Your task to perform on an android device: toggle show notifications on the lock screen Image 0: 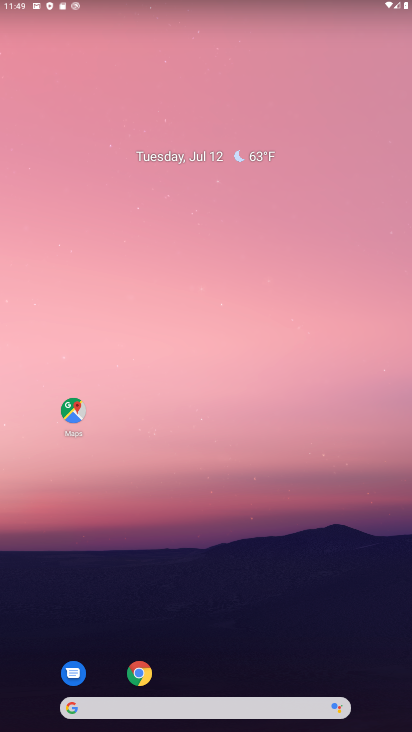
Step 0: press home button
Your task to perform on an android device: toggle show notifications on the lock screen Image 1: 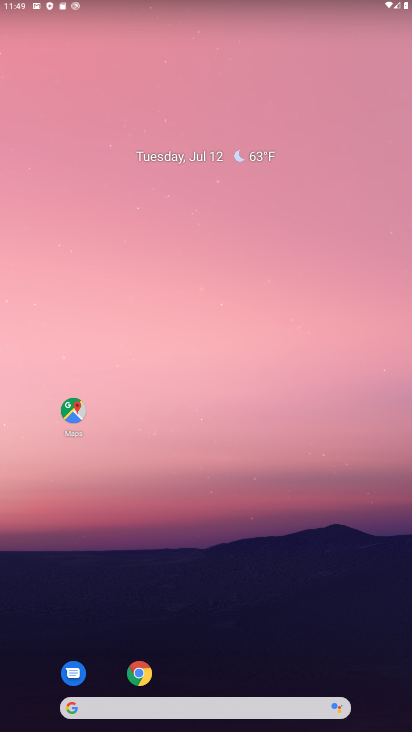
Step 1: drag from (232, 599) to (80, 9)
Your task to perform on an android device: toggle show notifications on the lock screen Image 2: 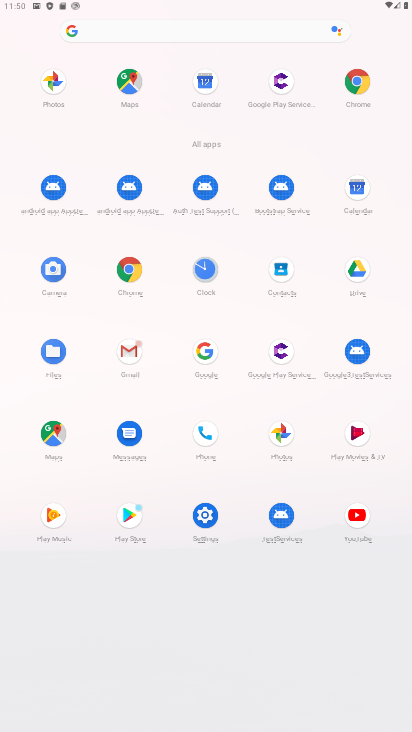
Step 2: click (194, 523)
Your task to perform on an android device: toggle show notifications on the lock screen Image 3: 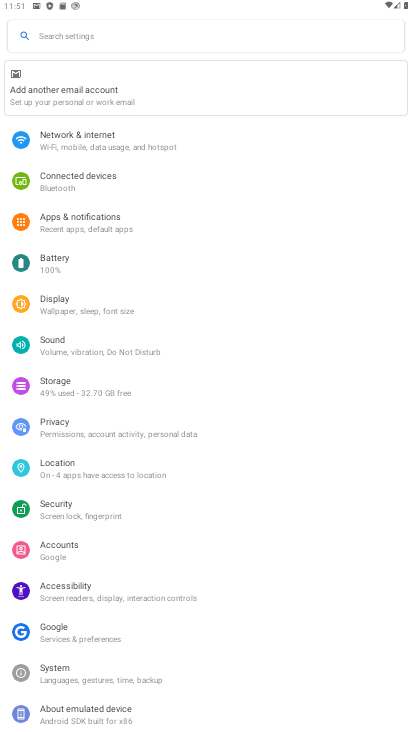
Step 3: click (13, 208)
Your task to perform on an android device: toggle show notifications on the lock screen Image 4: 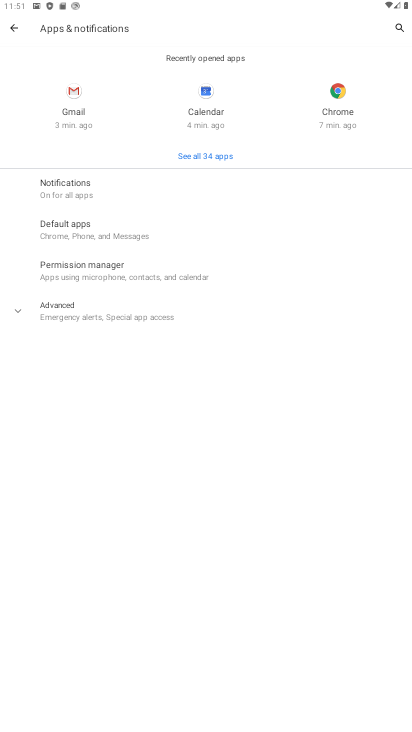
Step 4: click (81, 199)
Your task to perform on an android device: toggle show notifications on the lock screen Image 5: 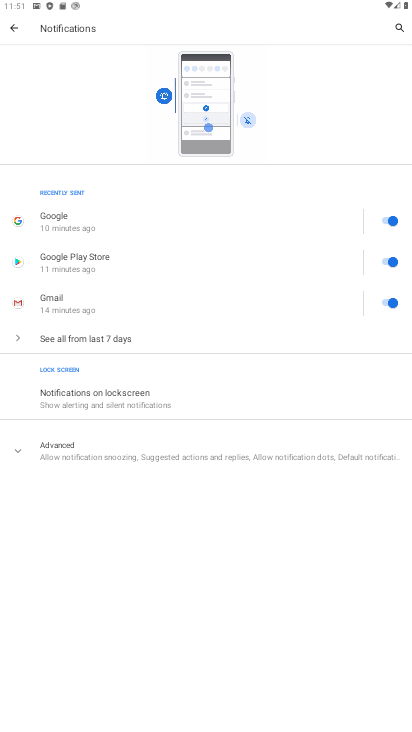
Step 5: click (59, 402)
Your task to perform on an android device: toggle show notifications on the lock screen Image 6: 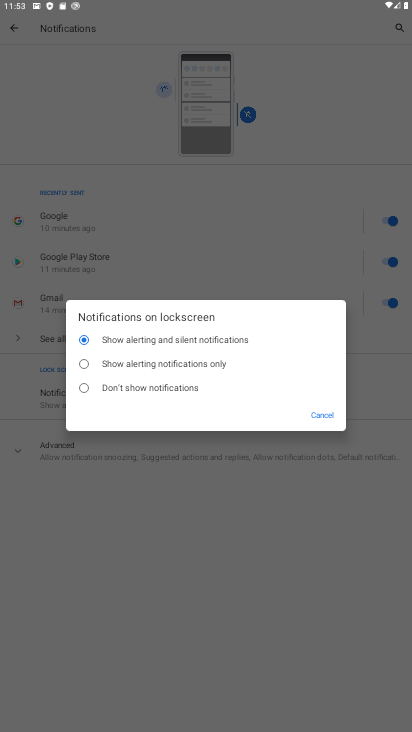
Step 6: click (154, 367)
Your task to perform on an android device: toggle show notifications on the lock screen Image 7: 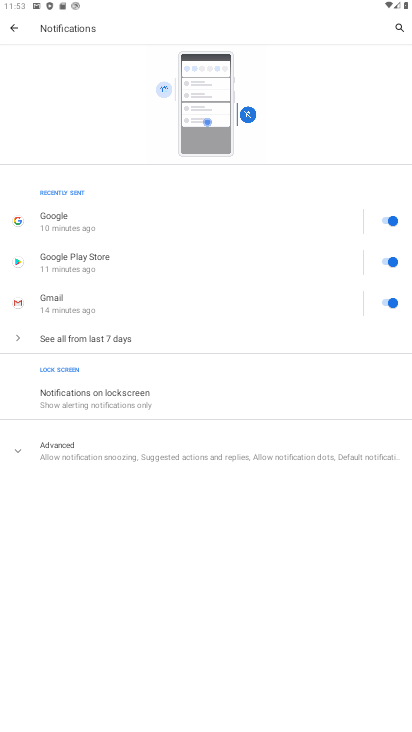
Step 7: task complete